Your task to perform on an android device: What's a good restaurant in Atlanta? Image 0: 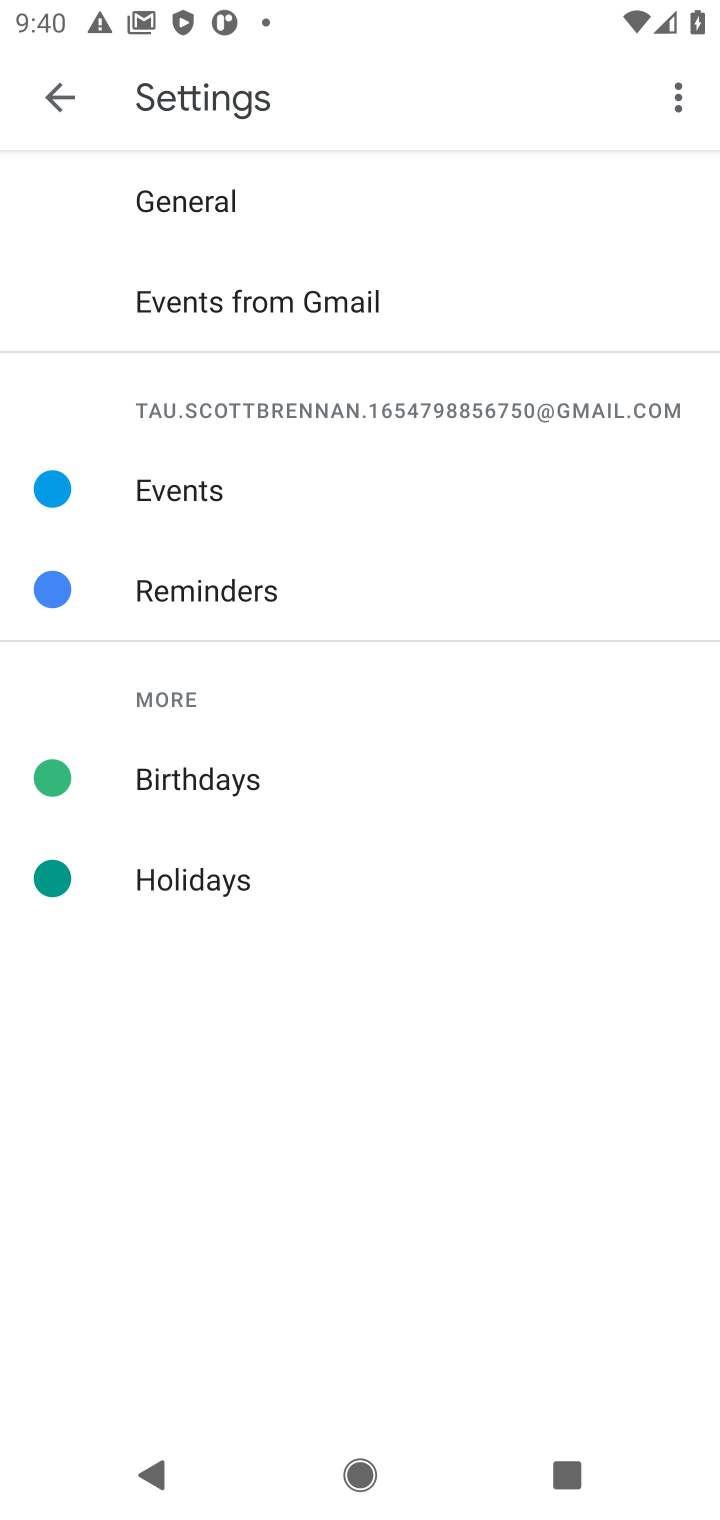
Step 0: press home button
Your task to perform on an android device: What's a good restaurant in Atlanta? Image 1: 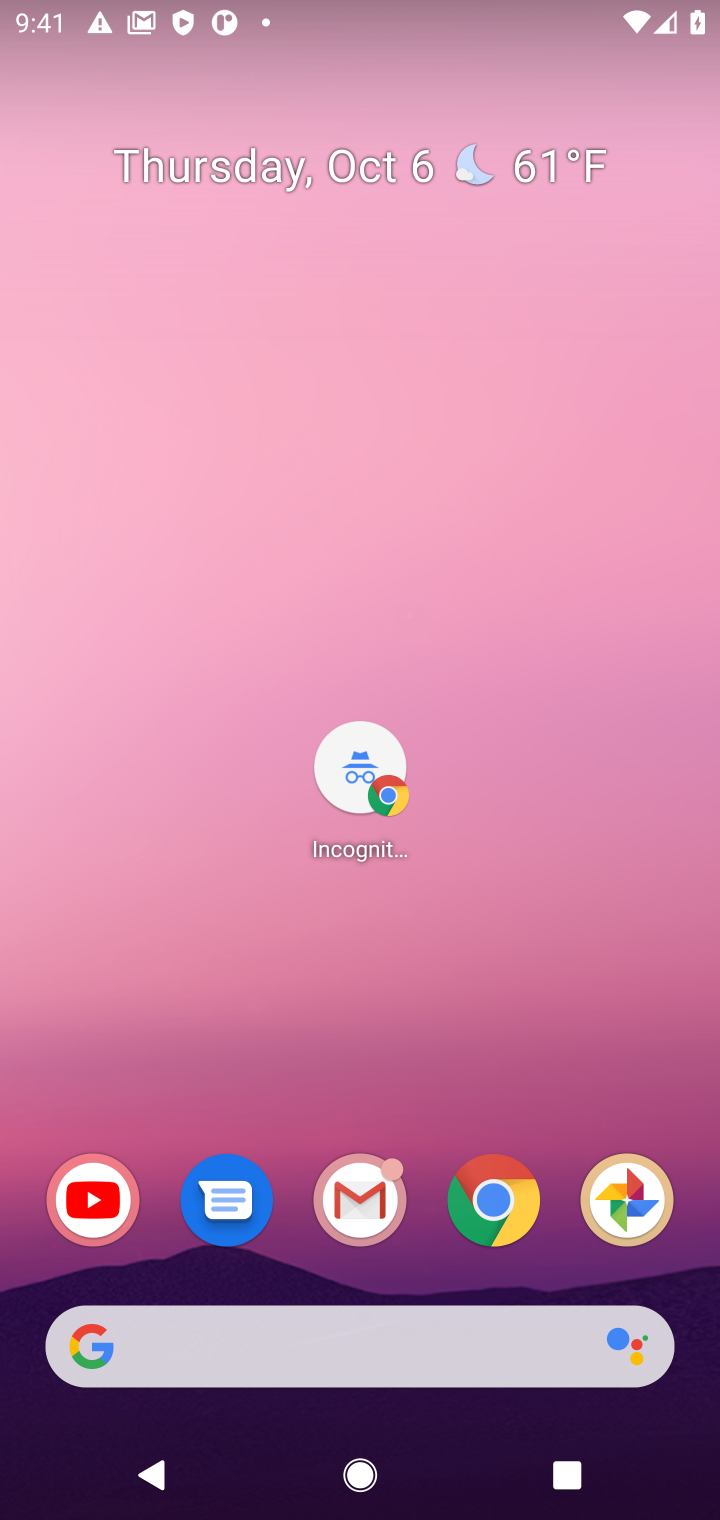
Step 1: drag from (233, 1152) to (187, 655)
Your task to perform on an android device: What's a good restaurant in Atlanta? Image 2: 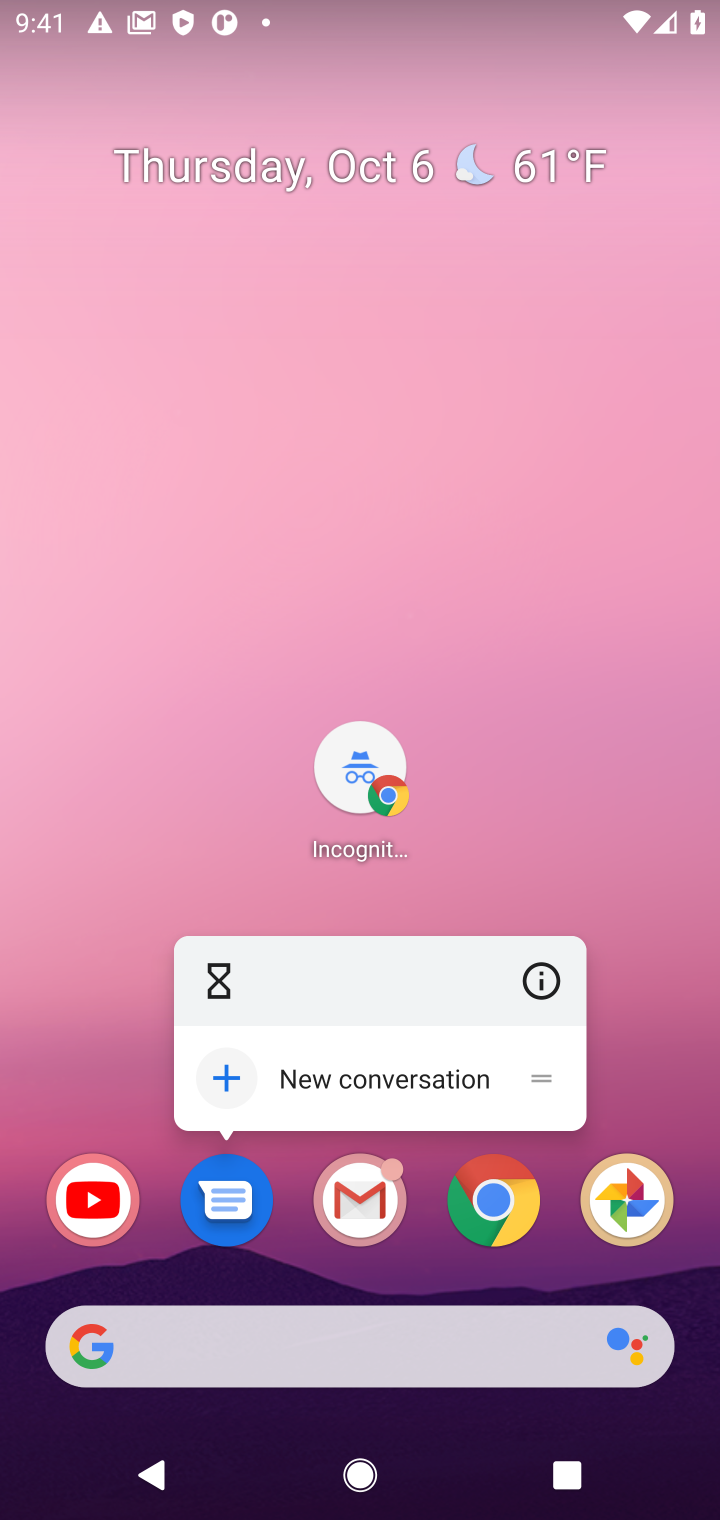
Step 2: drag from (322, 1113) to (322, 420)
Your task to perform on an android device: What's a good restaurant in Atlanta? Image 3: 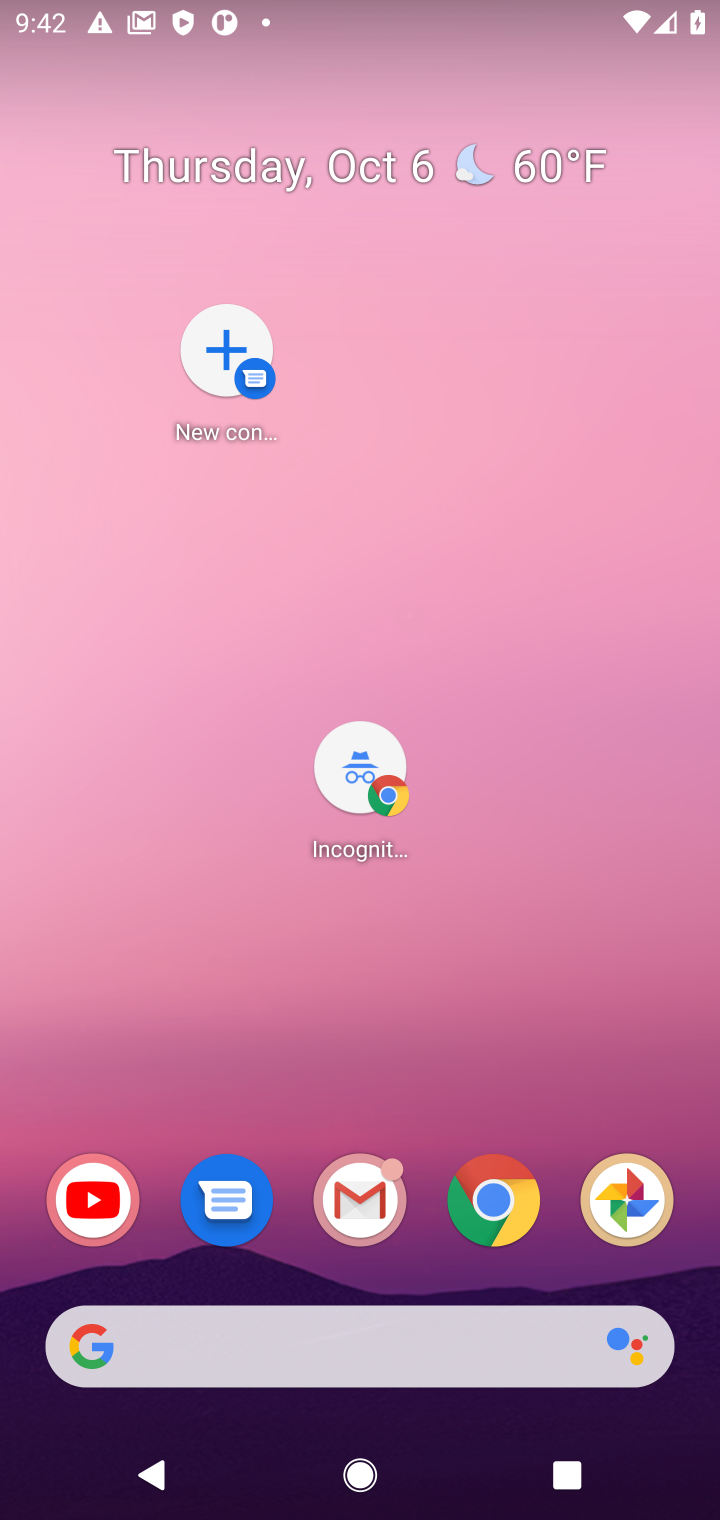
Step 3: drag from (431, 472) to (457, 2)
Your task to perform on an android device: What's a good restaurant in Atlanta? Image 4: 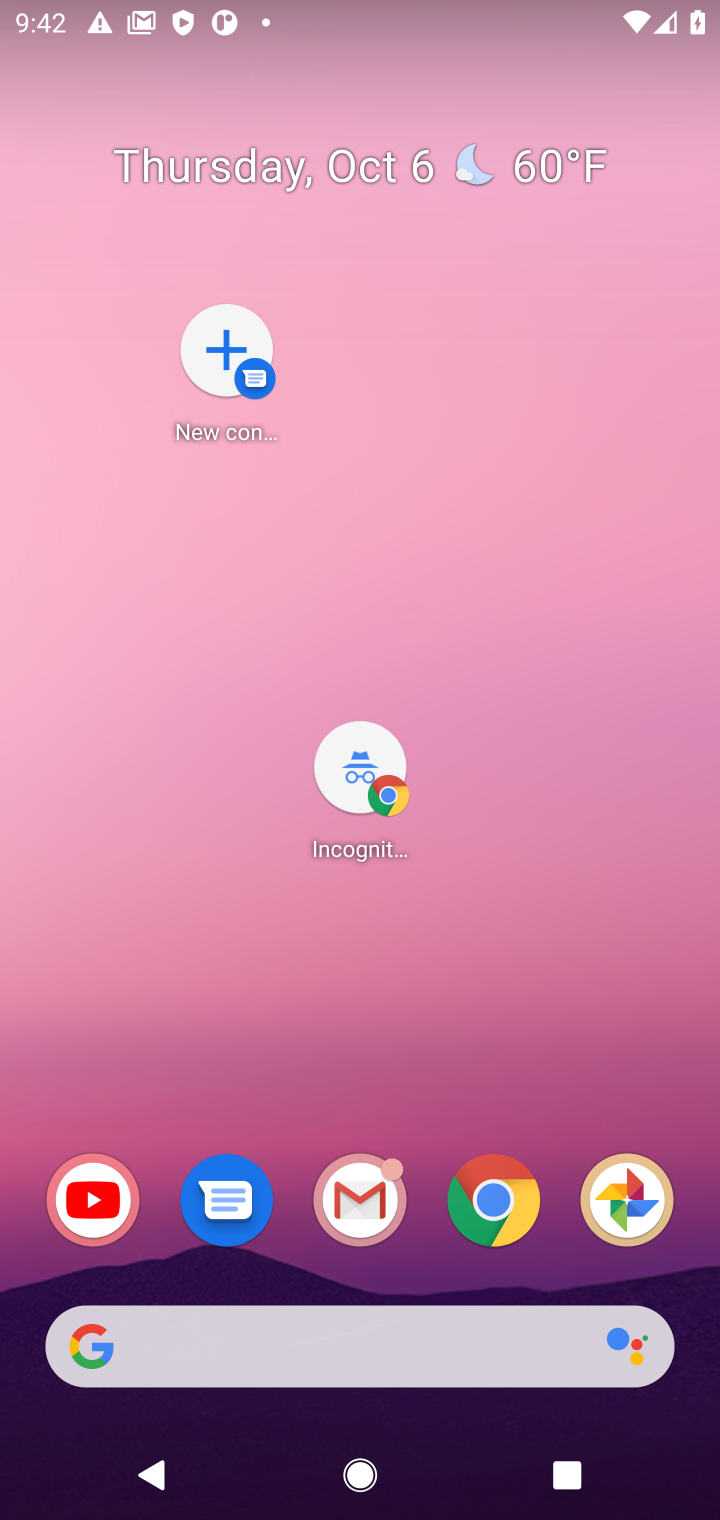
Step 4: drag from (267, 1313) to (442, 264)
Your task to perform on an android device: What's a good restaurant in Atlanta? Image 5: 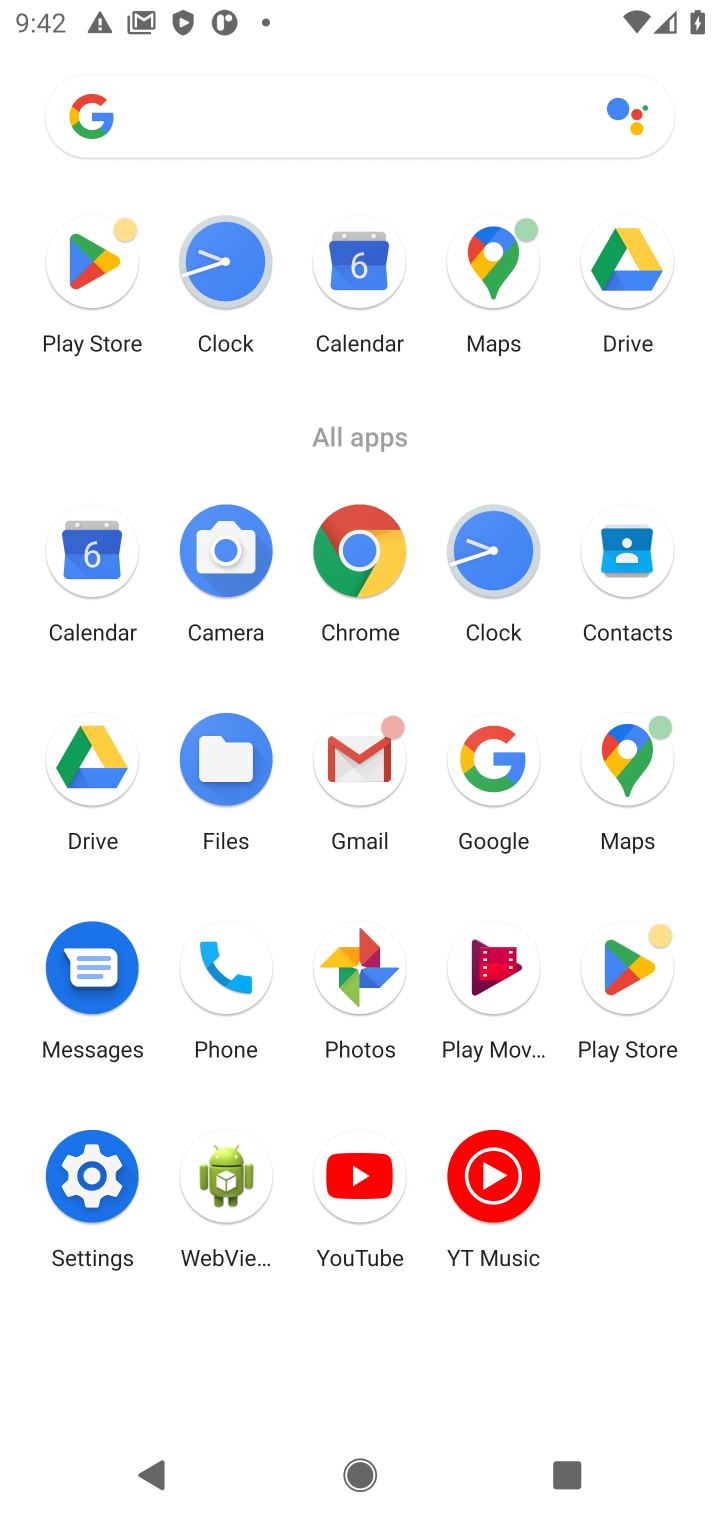
Step 5: click (490, 777)
Your task to perform on an android device: What's a good restaurant in Atlanta? Image 6: 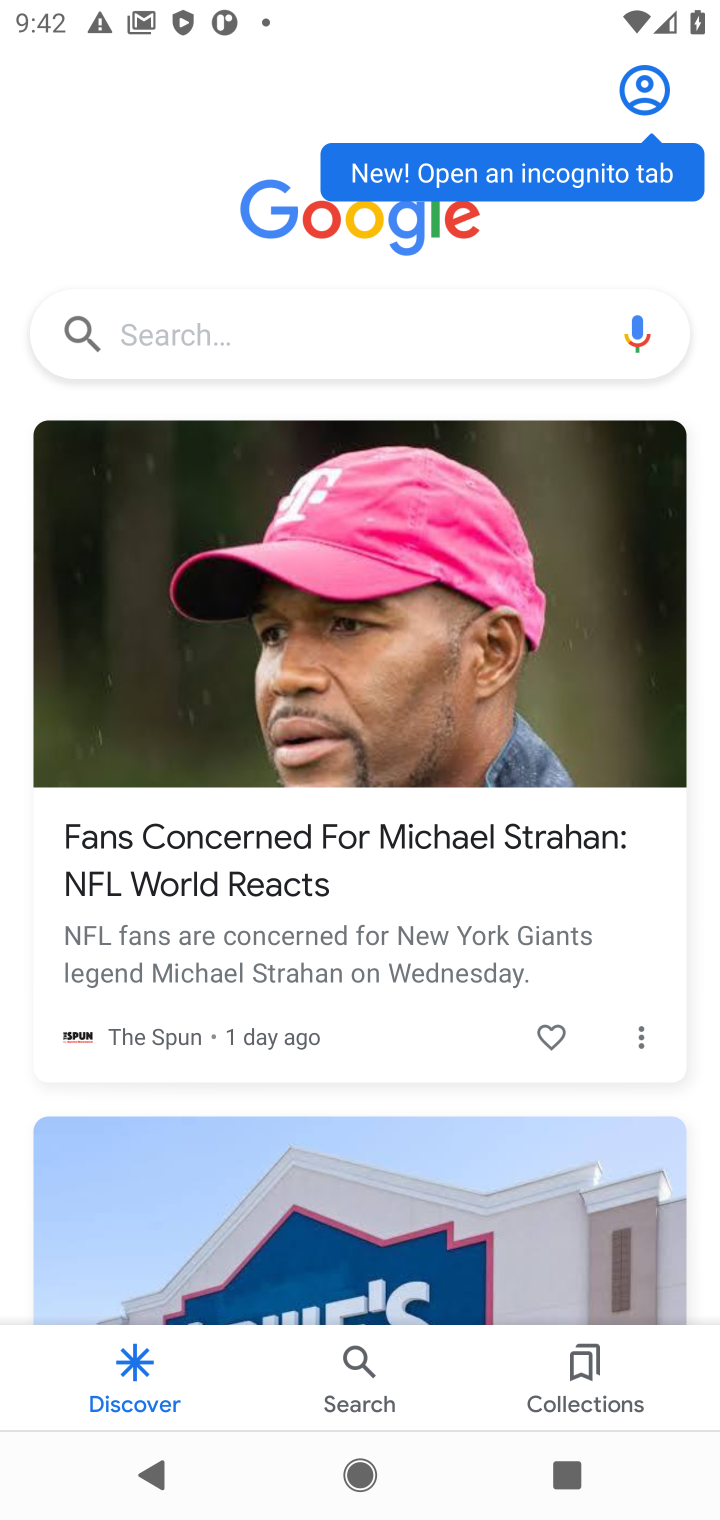
Step 6: click (324, 349)
Your task to perform on an android device: What's a good restaurant in Atlanta? Image 7: 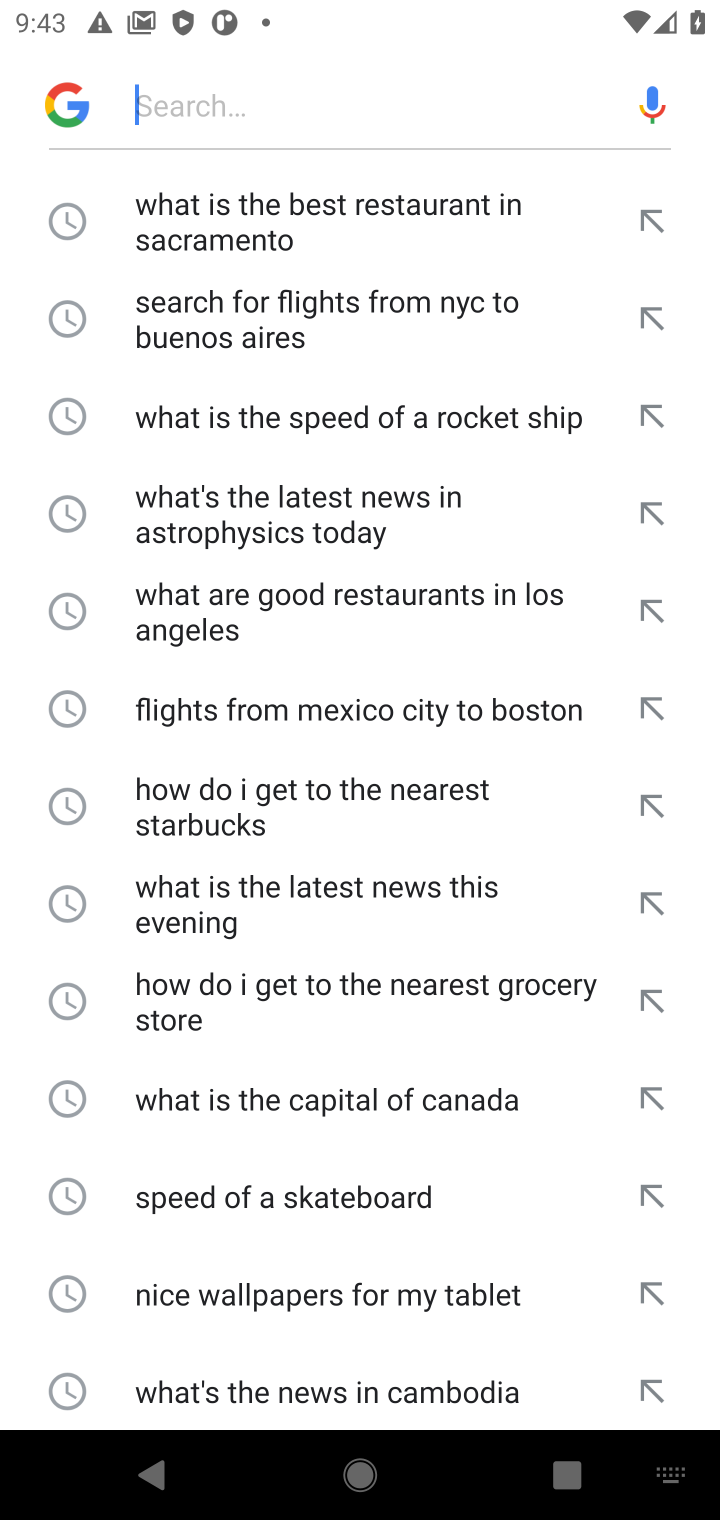
Step 7: type "What's a good restaurant in Atlanta?"
Your task to perform on an android device: What's a good restaurant in Atlanta? Image 8: 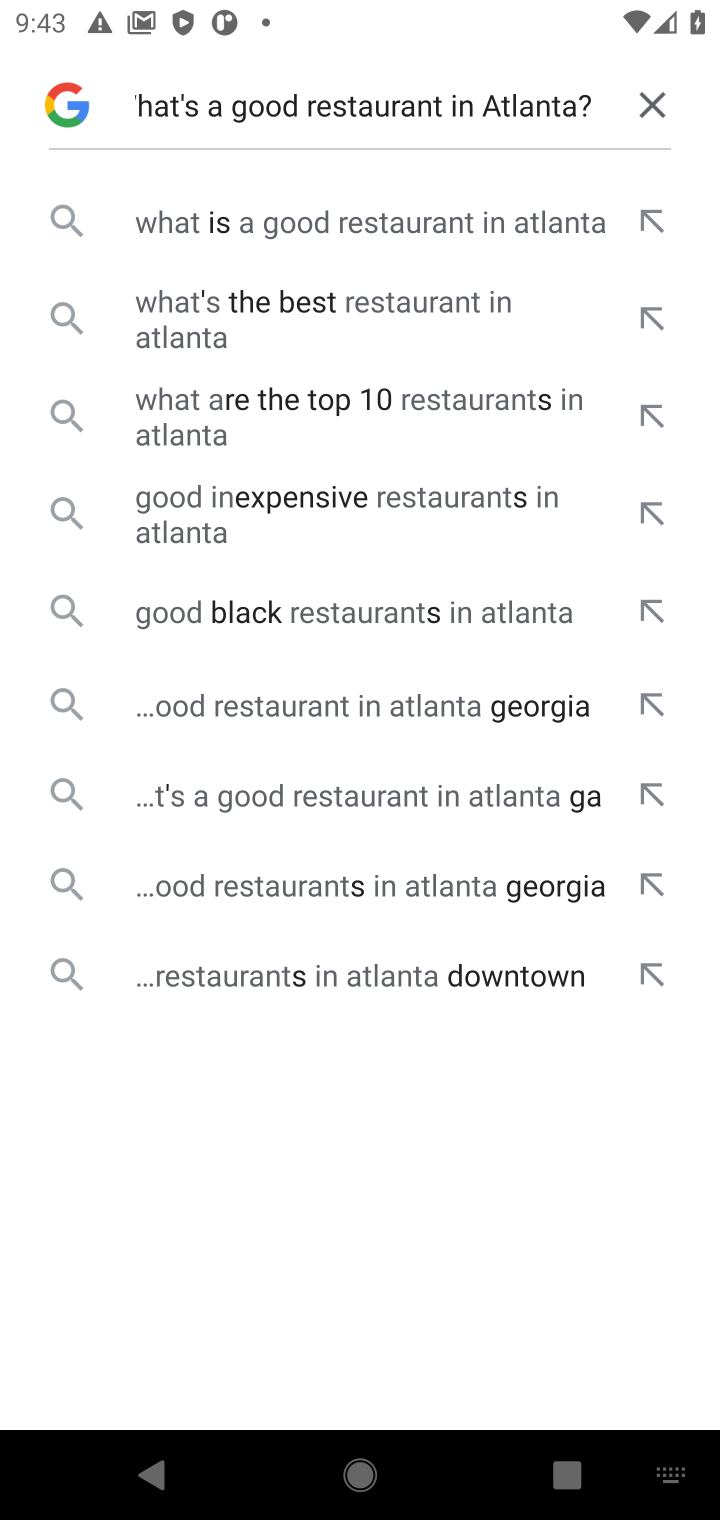
Step 8: click (496, 211)
Your task to perform on an android device: What's a good restaurant in Atlanta? Image 9: 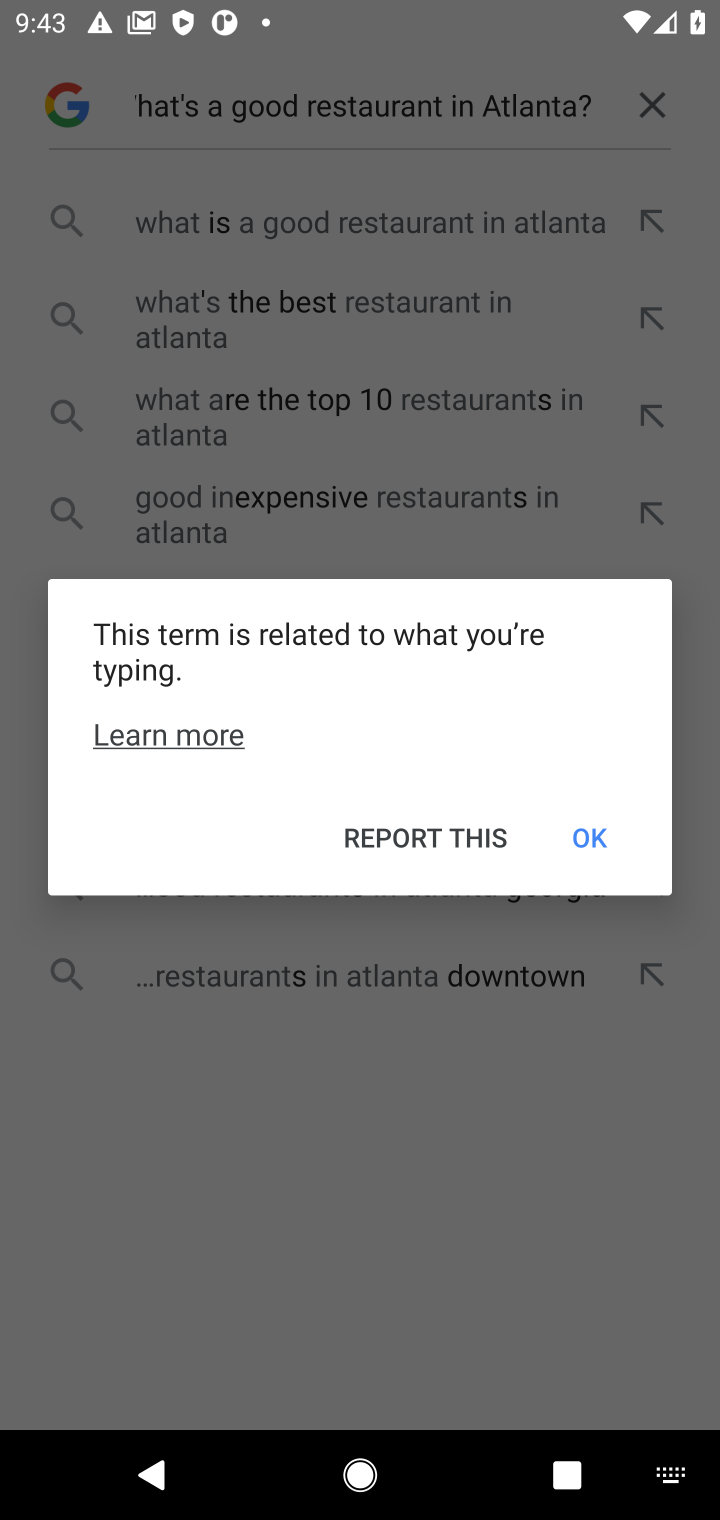
Step 9: click (591, 831)
Your task to perform on an android device: What's a good restaurant in Atlanta? Image 10: 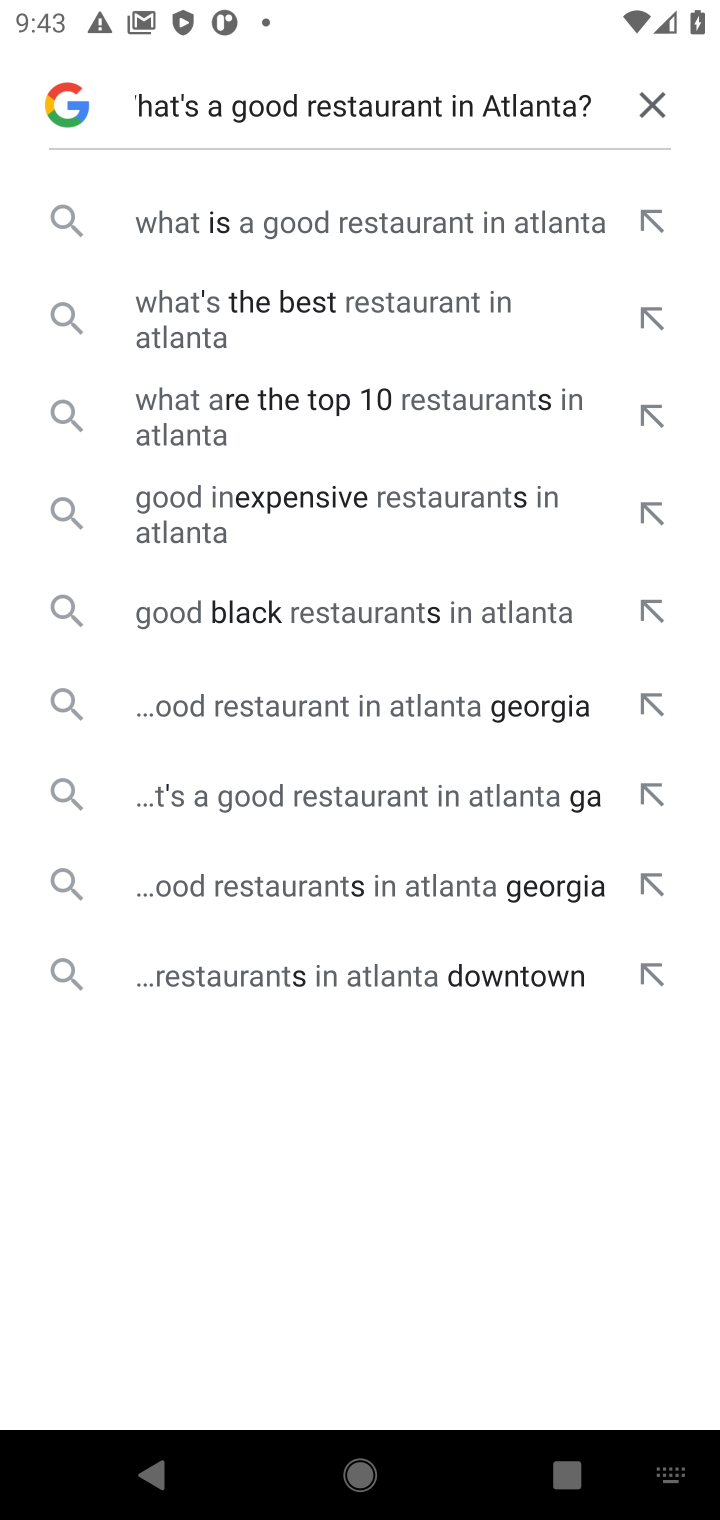
Step 10: click (448, 240)
Your task to perform on an android device: What's a good restaurant in Atlanta? Image 11: 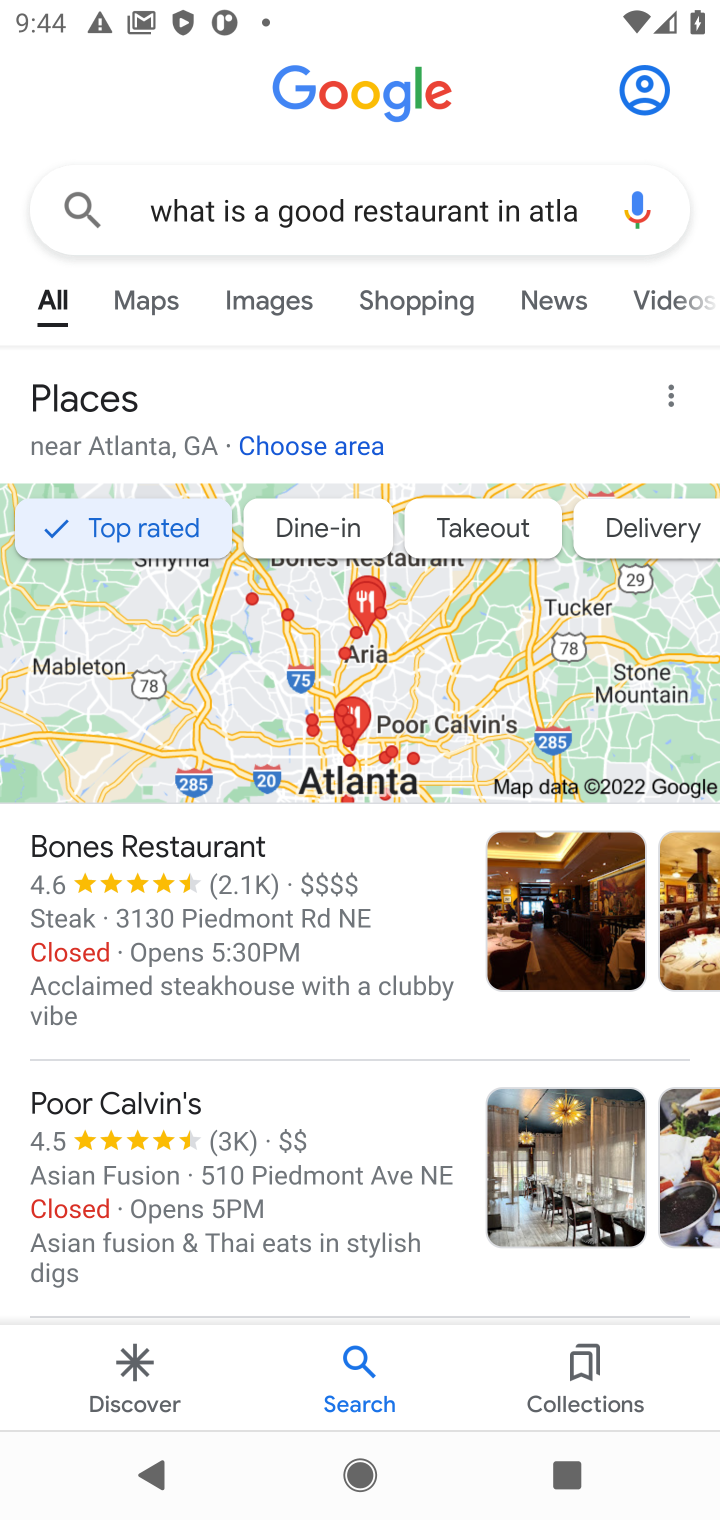
Step 11: task complete